Your task to perform on an android device: Open location settings Image 0: 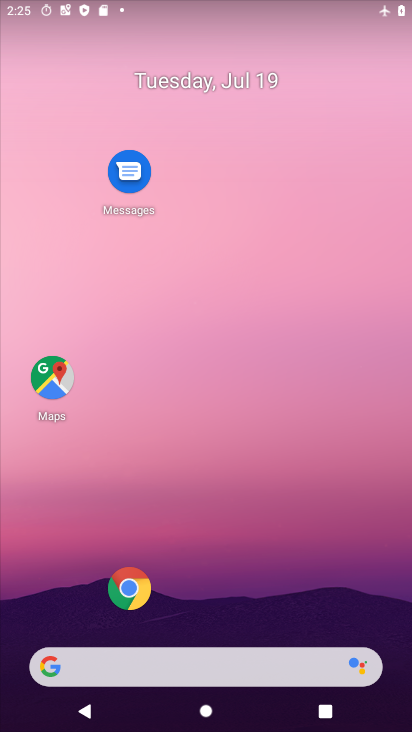
Step 0: drag from (246, 169) to (272, 36)
Your task to perform on an android device: Open location settings Image 1: 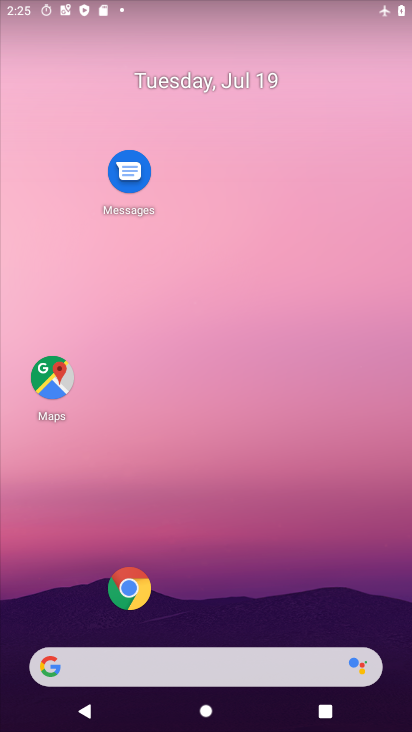
Step 1: drag from (36, 698) to (218, 119)
Your task to perform on an android device: Open location settings Image 2: 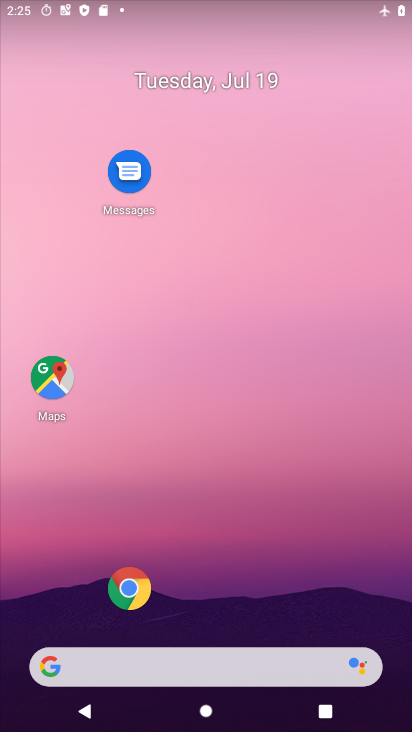
Step 2: drag from (12, 669) to (246, 108)
Your task to perform on an android device: Open location settings Image 3: 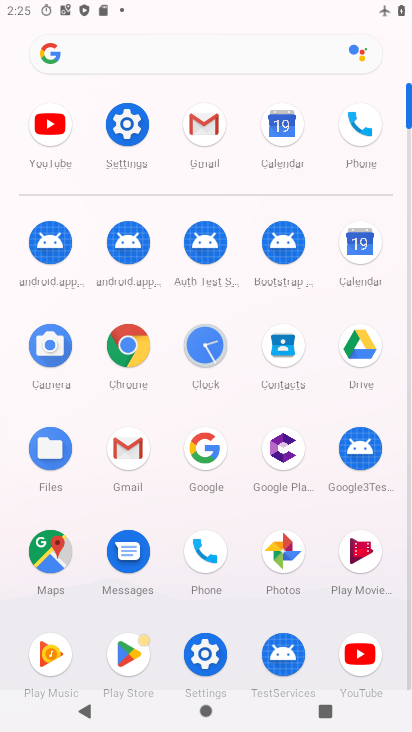
Step 3: click (214, 661)
Your task to perform on an android device: Open location settings Image 4: 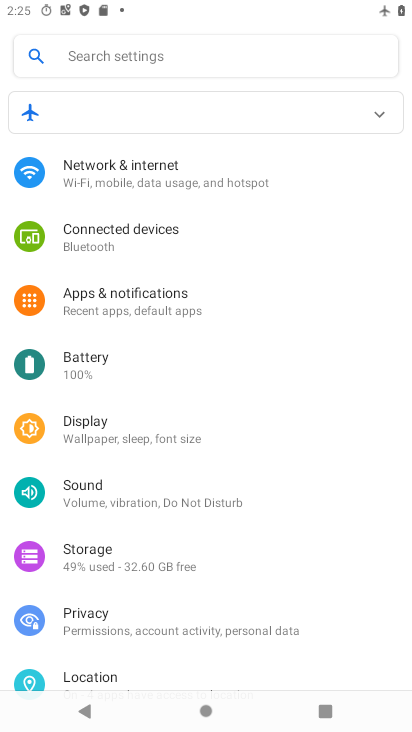
Step 4: click (97, 684)
Your task to perform on an android device: Open location settings Image 5: 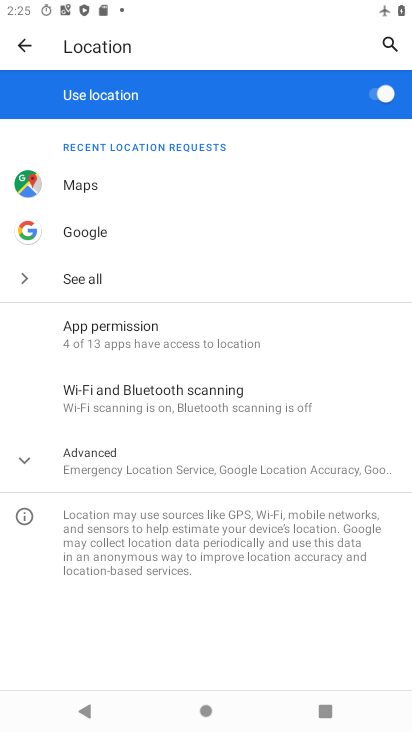
Step 5: click (118, 455)
Your task to perform on an android device: Open location settings Image 6: 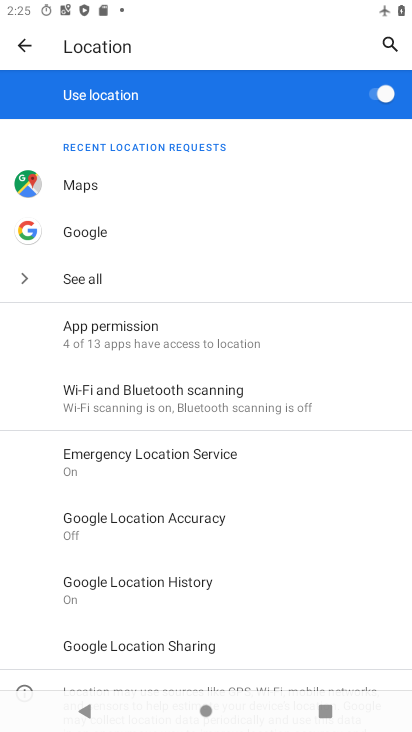
Step 6: task complete